Your task to perform on an android device: choose inbox layout in the gmail app Image 0: 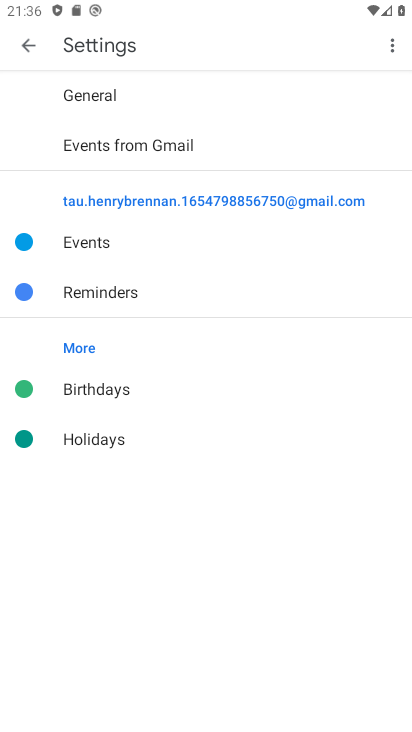
Step 0: press back button
Your task to perform on an android device: choose inbox layout in the gmail app Image 1: 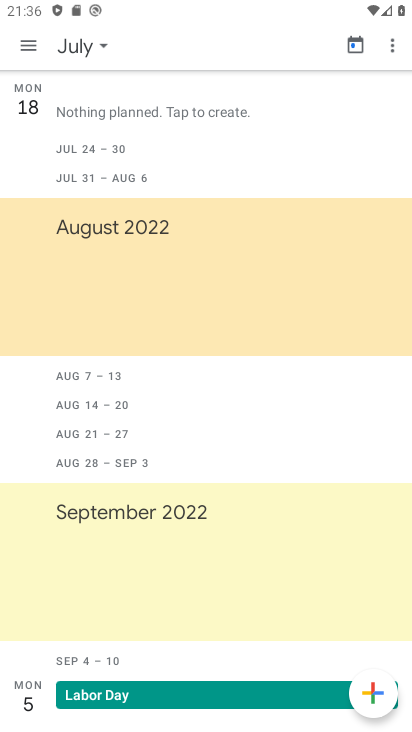
Step 1: press back button
Your task to perform on an android device: choose inbox layout in the gmail app Image 2: 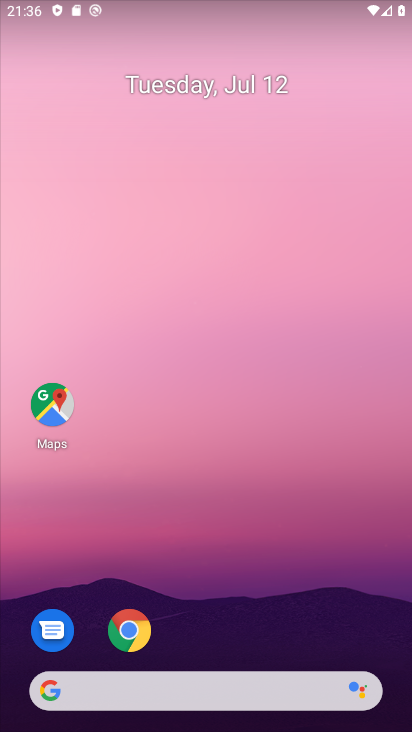
Step 2: drag from (251, 631) to (312, 14)
Your task to perform on an android device: choose inbox layout in the gmail app Image 3: 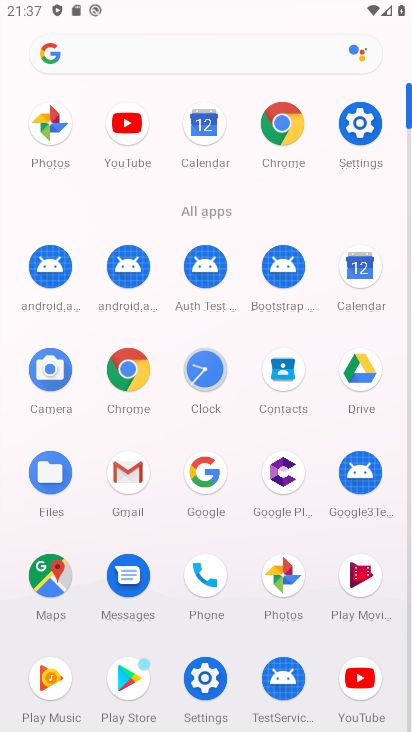
Step 3: click (123, 465)
Your task to perform on an android device: choose inbox layout in the gmail app Image 4: 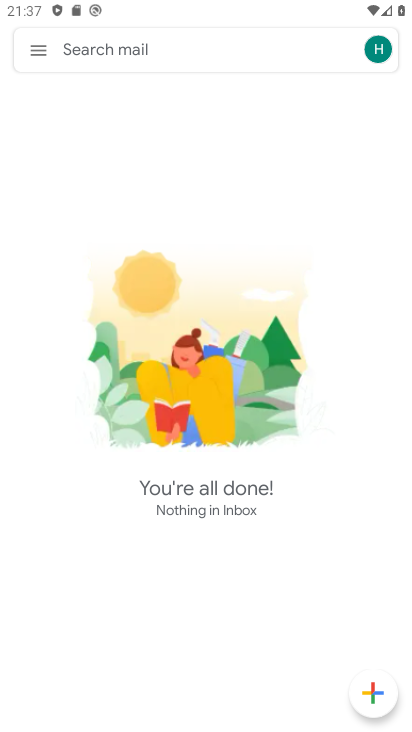
Step 4: click (38, 47)
Your task to perform on an android device: choose inbox layout in the gmail app Image 5: 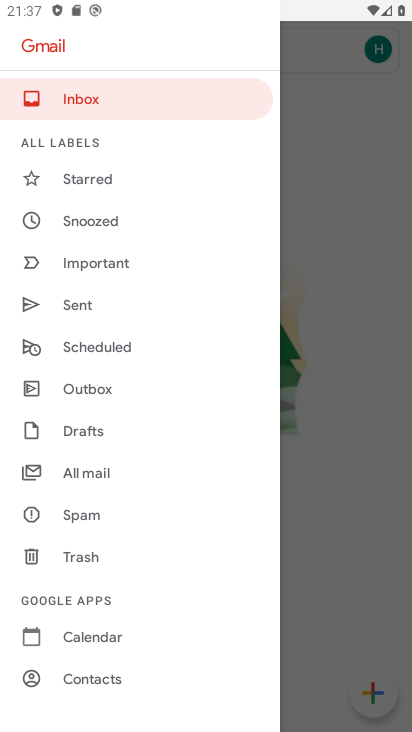
Step 5: drag from (109, 669) to (225, 125)
Your task to perform on an android device: choose inbox layout in the gmail app Image 6: 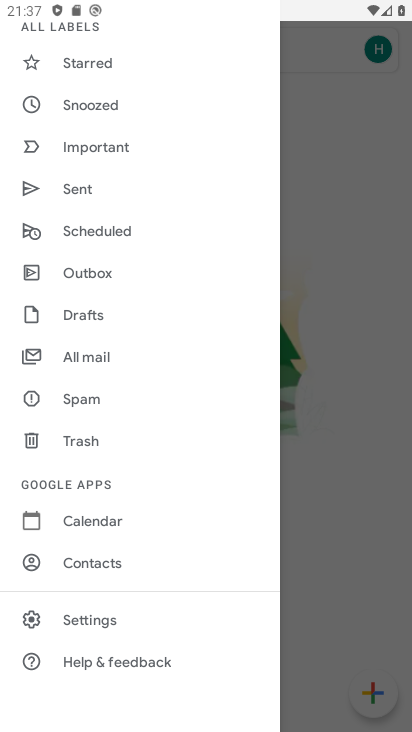
Step 6: click (90, 617)
Your task to perform on an android device: choose inbox layout in the gmail app Image 7: 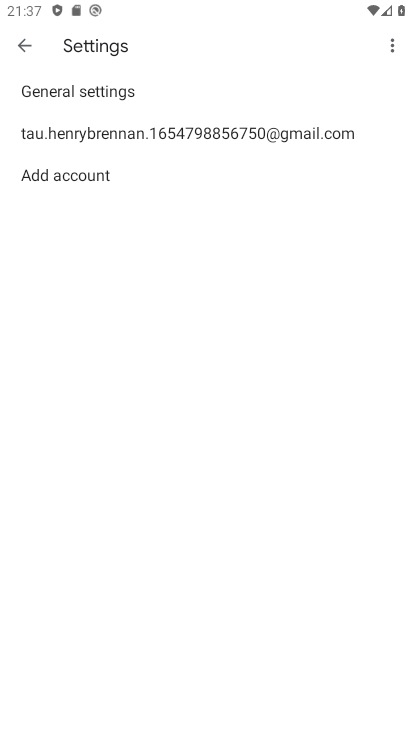
Step 7: click (161, 138)
Your task to perform on an android device: choose inbox layout in the gmail app Image 8: 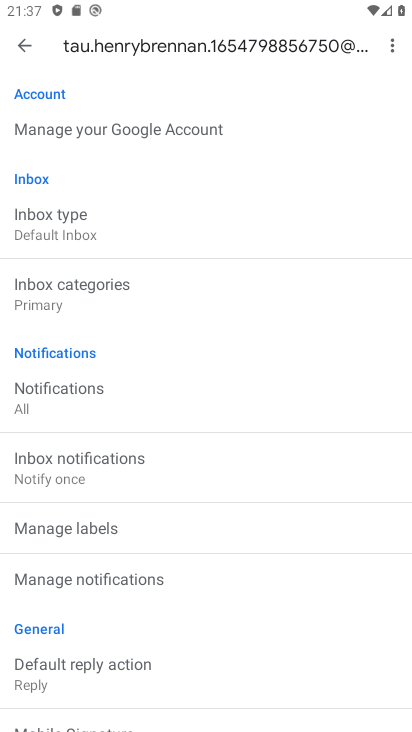
Step 8: click (102, 223)
Your task to perform on an android device: choose inbox layout in the gmail app Image 9: 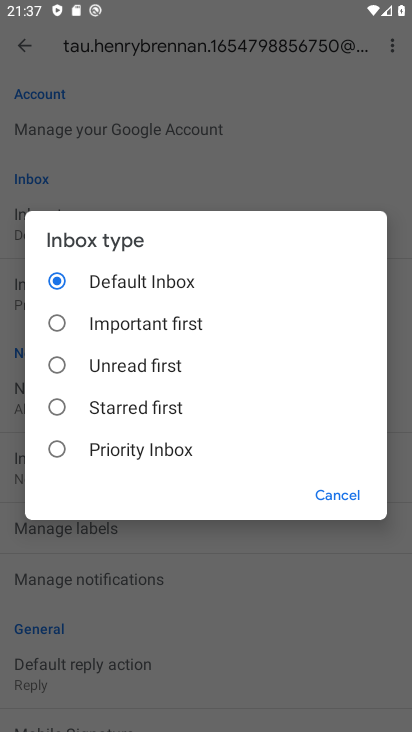
Step 9: click (50, 273)
Your task to perform on an android device: choose inbox layout in the gmail app Image 10: 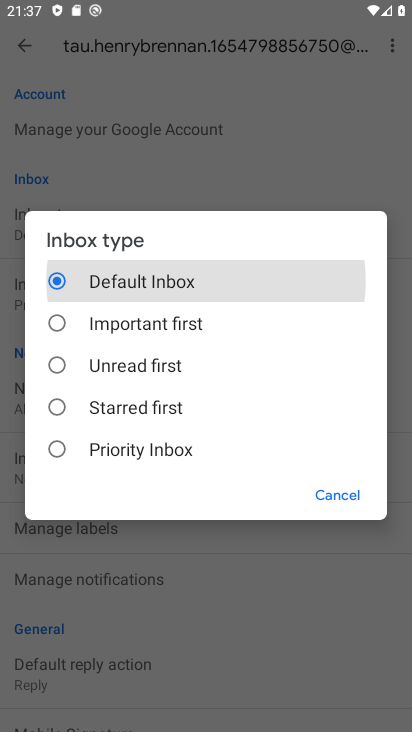
Step 10: task complete